Your task to perform on an android device: Go to Amazon Image 0: 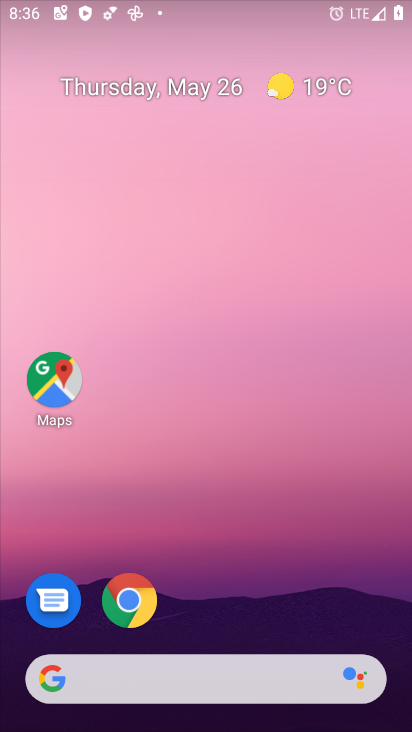
Step 0: press home button
Your task to perform on an android device: Go to Amazon Image 1: 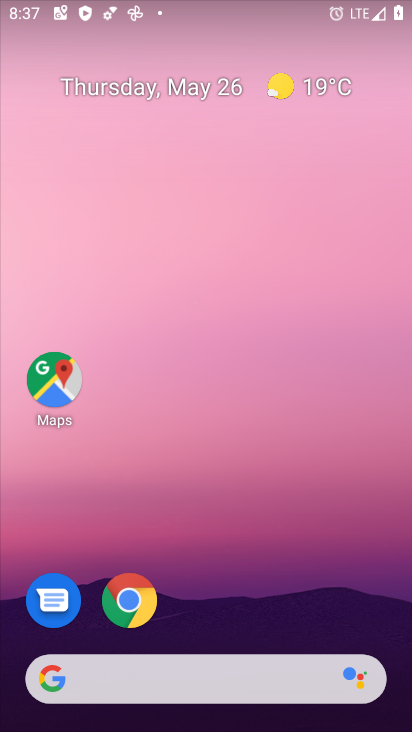
Step 1: click (59, 680)
Your task to perform on an android device: Go to Amazon Image 2: 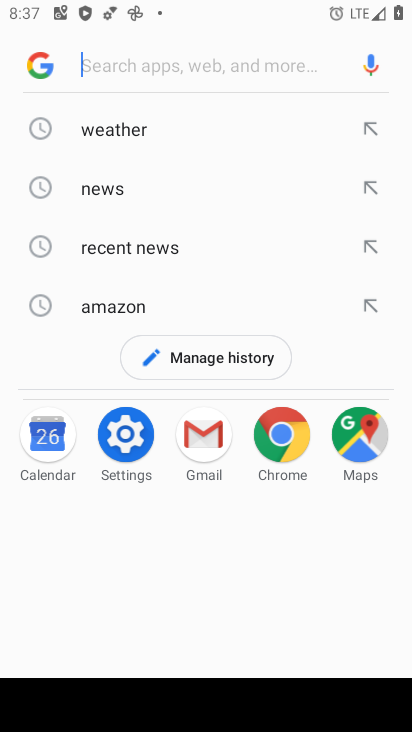
Step 2: click (95, 309)
Your task to perform on an android device: Go to Amazon Image 3: 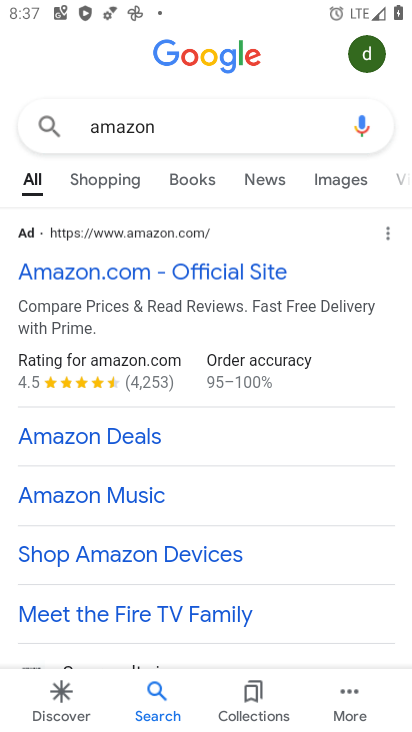
Step 3: click (125, 278)
Your task to perform on an android device: Go to Amazon Image 4: 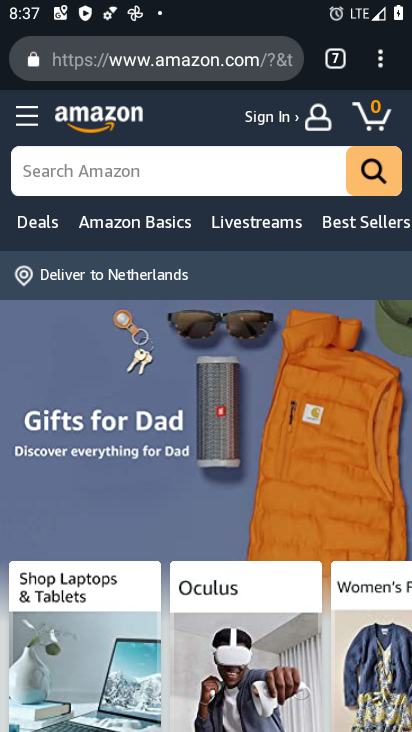
Step 4: task complete